Your task to perform on an android device: turn off picture-in-picture Image 0: 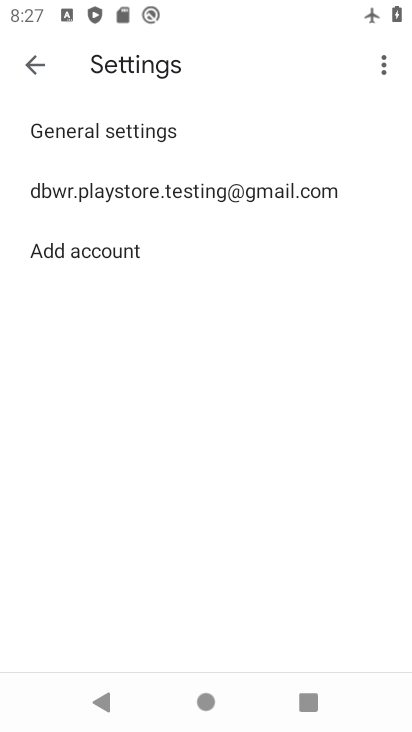
Step 0: press home button
Your task to perform on an android device: turn off picture-in-picture Image 1: 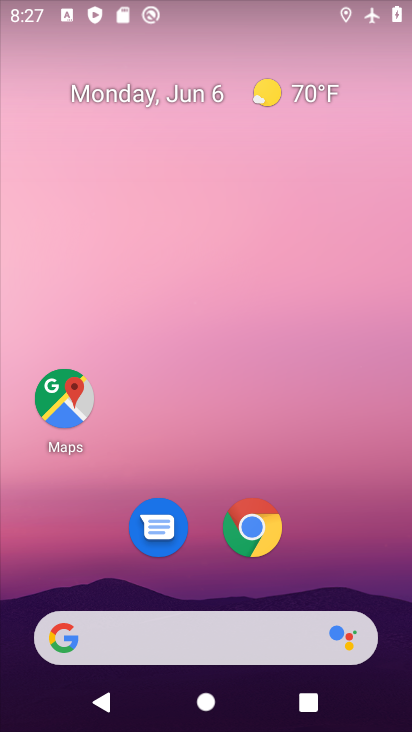
Step 1: drag from (177, 561) to (207, 186)
Your task to perform on an android device: turn off picture-in-picture Image 2: 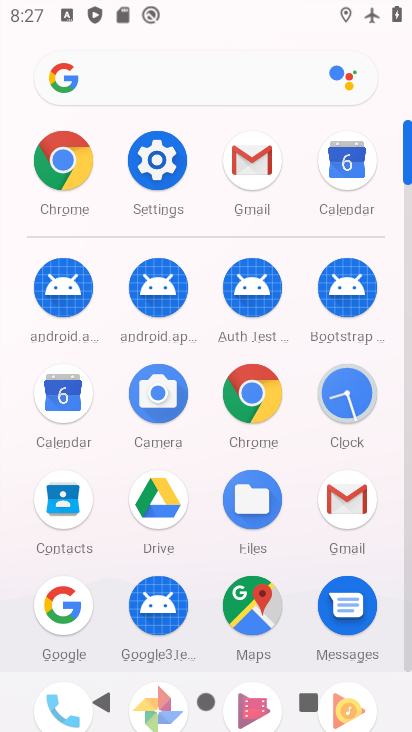
Step 2: click (167, 181)
Your task to perform on an android device: turn off picture-in-picture Image 3: 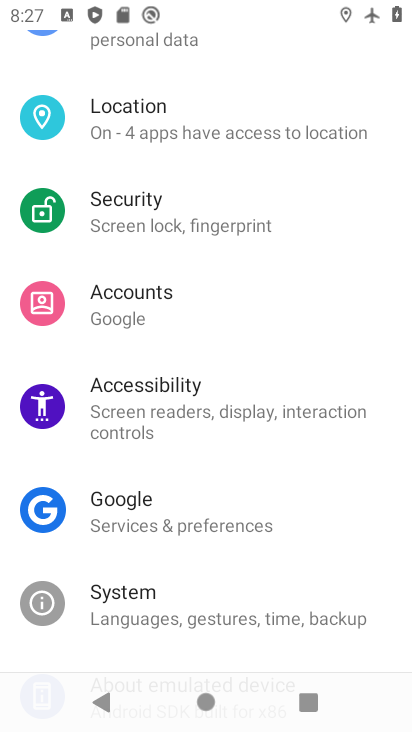
Step 3: drag from (179, 220) to (175, 539)
Your task to perform on an android device: turn off picture-in-picture Image 4: 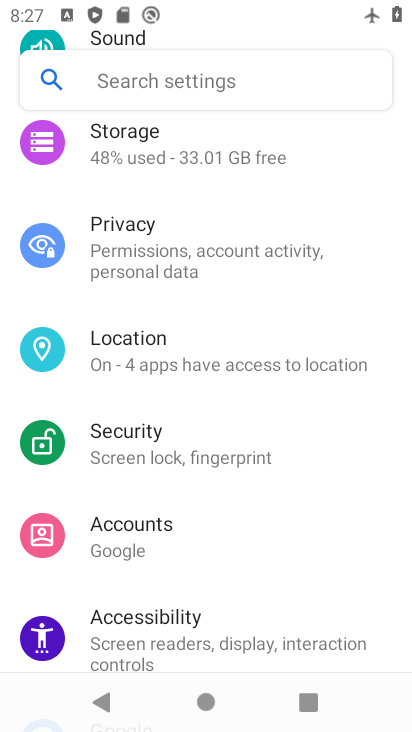
Step 4: drag from (188, 199) to (168, 527)
Your task to perform on an android device: turn off picture-in-picture Image 5: 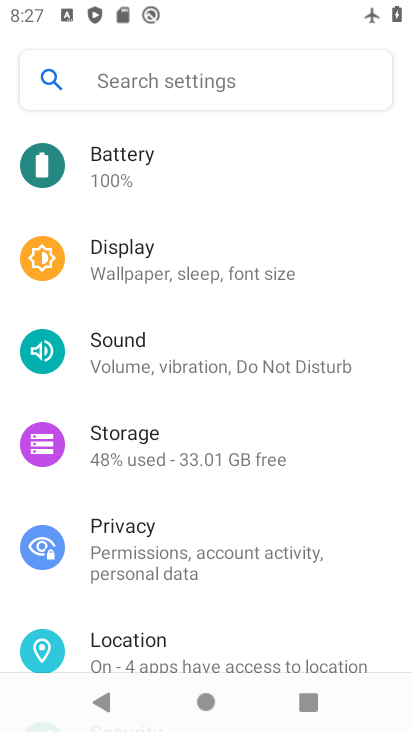
Step 5: drag from (190, 275) to (174, 560)
Your task to perform on an android device: turn off picture-in-picture Image 6: 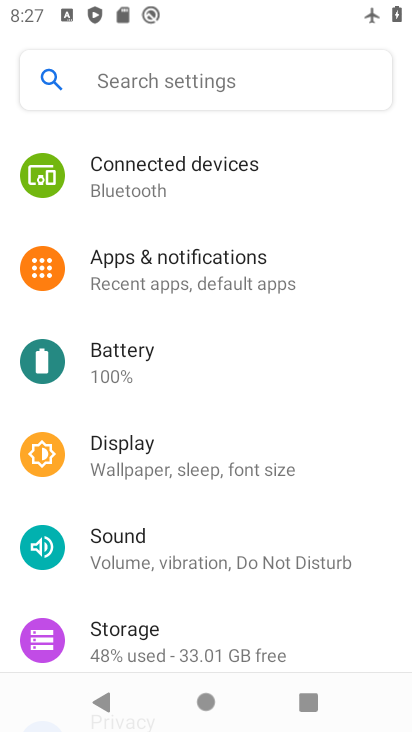
Step 6: click (184, 278)
Your task to perform on an android device: turn off picture-in-picture Image 7: 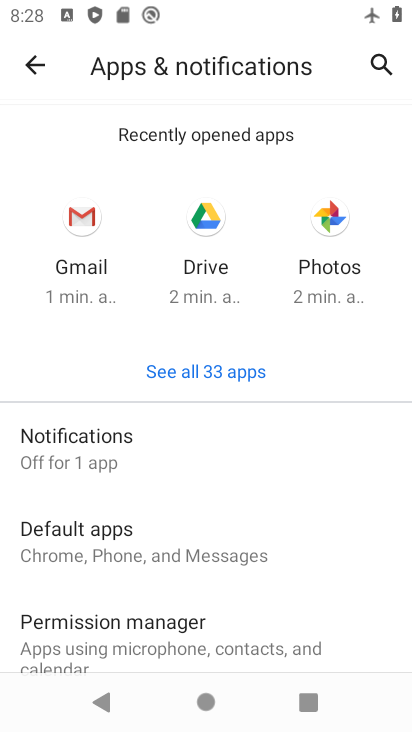
Step 7: drag from (194, 527) to (233, 319)
Your task to perform on an android device: turn off picture-in-picture Image 8: 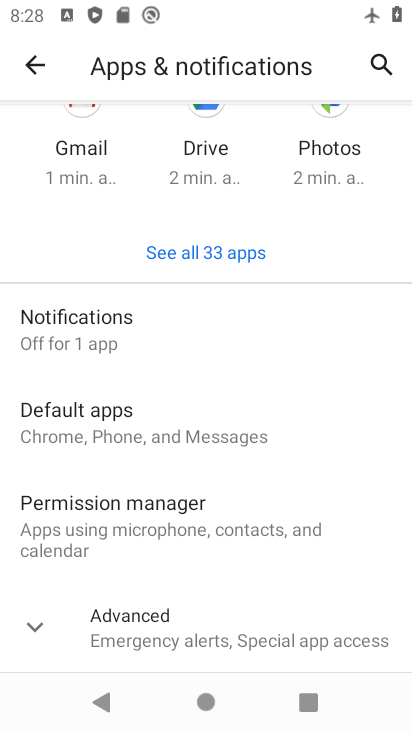
Step 8: click (185, 647)
Your task to perform on an android device: turn off picture-in-picture Image 9: 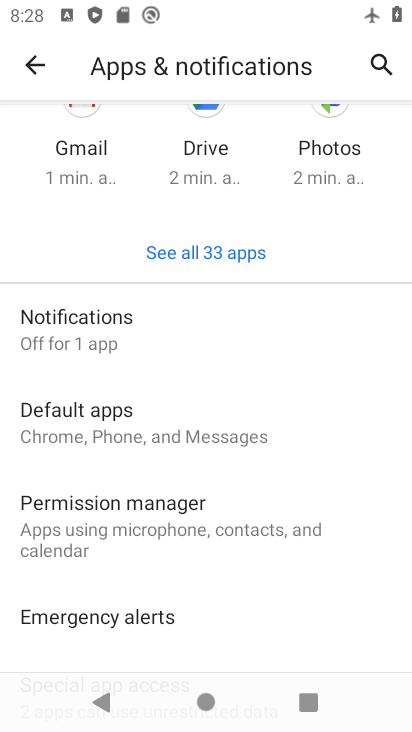
Step 9: drag from (198, 535) to (201, 226)
Your task to perform on an android device: turn off picture-in-picture Image 10: 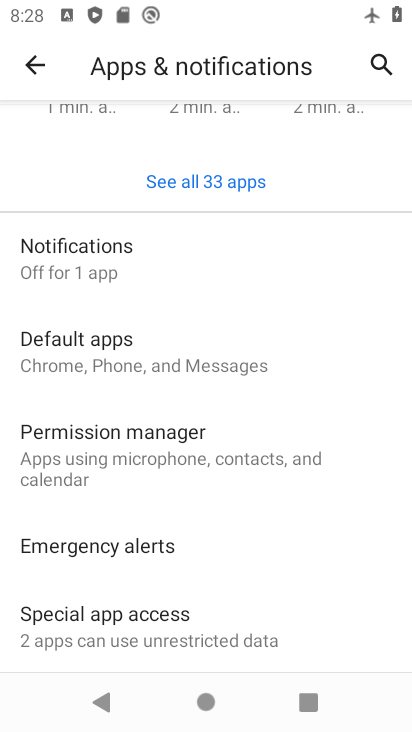
Step 10: click (256, 634)
Your task to perform on an android device: turn off picture-in-picture Image 11: 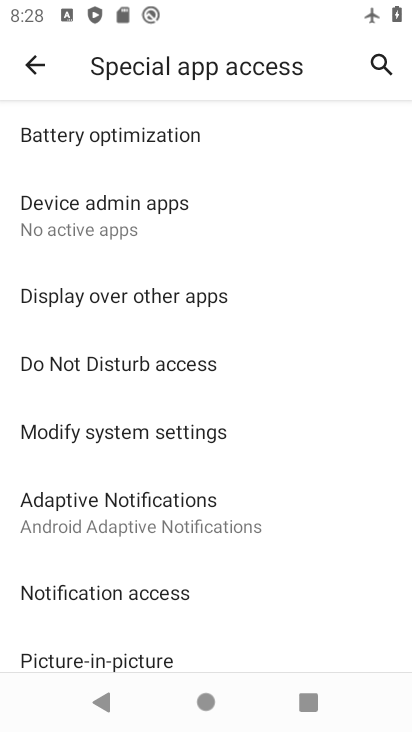
Step 11: click (143, 650)
Your task to perform on an android device: turn off picture-in-picture Image 12: 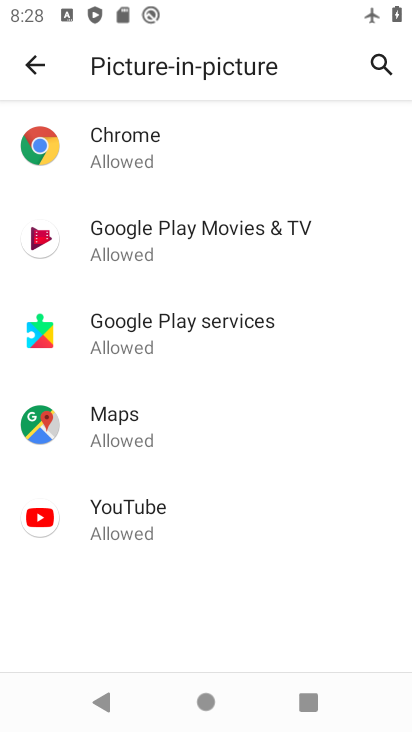
Step 12: click (153, 152)
Your task to perform on an android device: turn off picture-in-picture Image 13: 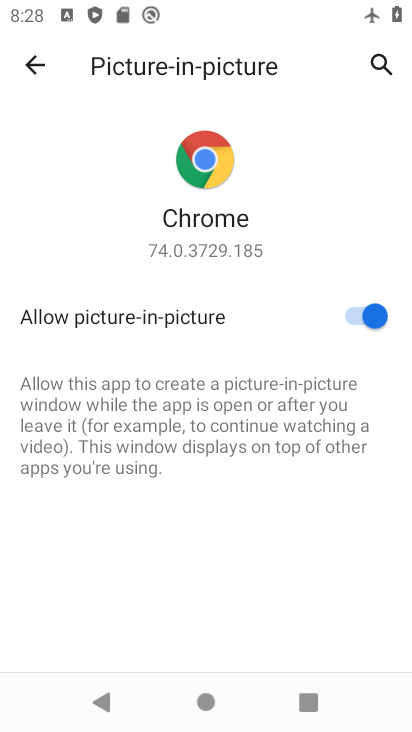
Step 13: click (346, 331)
Your task to perform on an android device: turn off picture-in-picture Image 14: 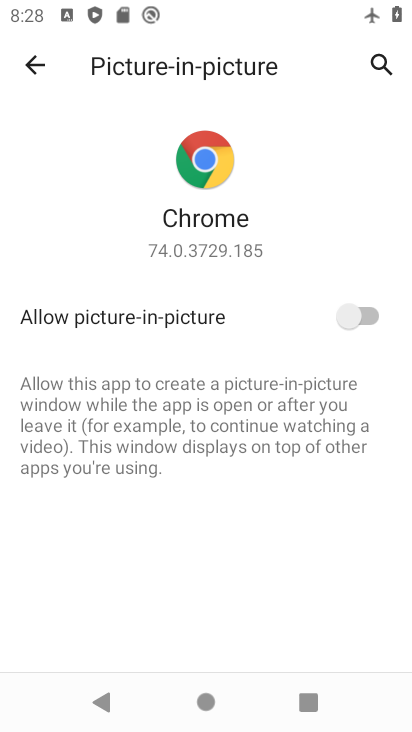
Step 14: task complete